Your task to perform on an android device: Go to sound settings Image 0: 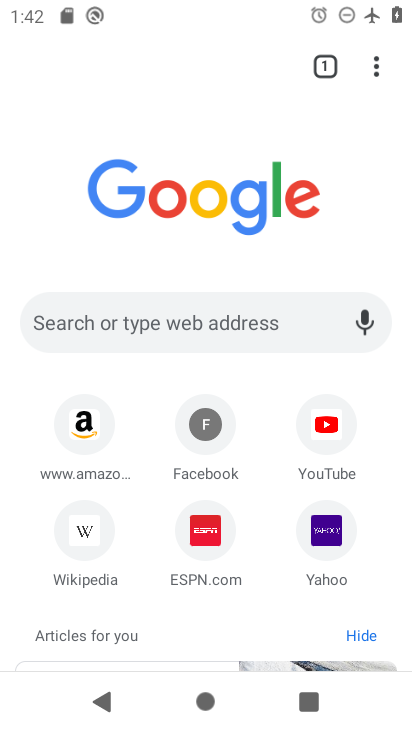
Step 0: press home button
Your task to perform on an android device: Go to sound settings Image 1: 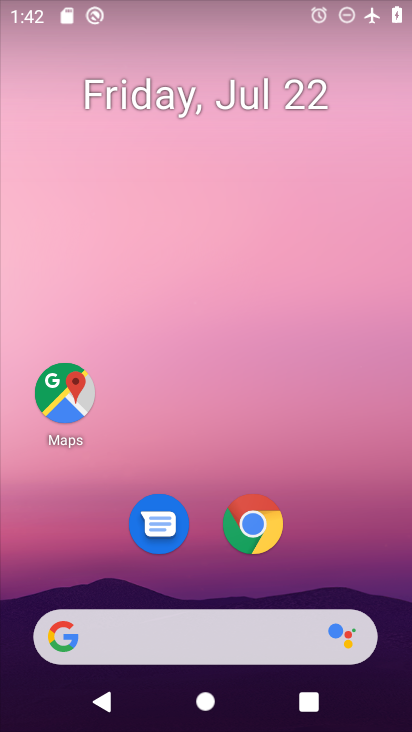
Step 1: drag from (293, 537) to (331, 97)
Your task to perform on an android device: Go to sound settings Image 2: 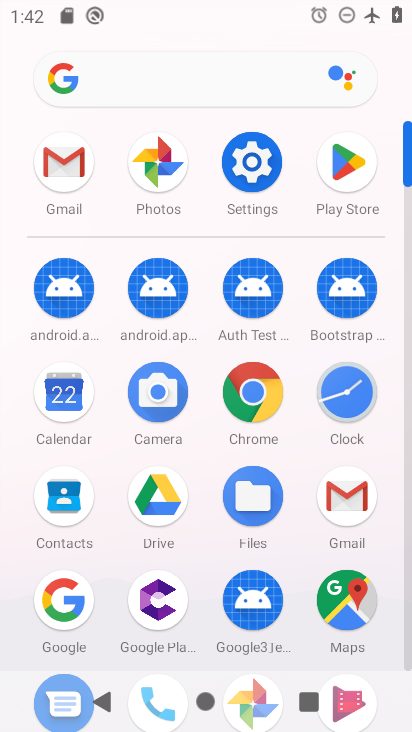
Step 2: click (262, 162)
Your task to perform on an android device: Go to sound settings Image 3: 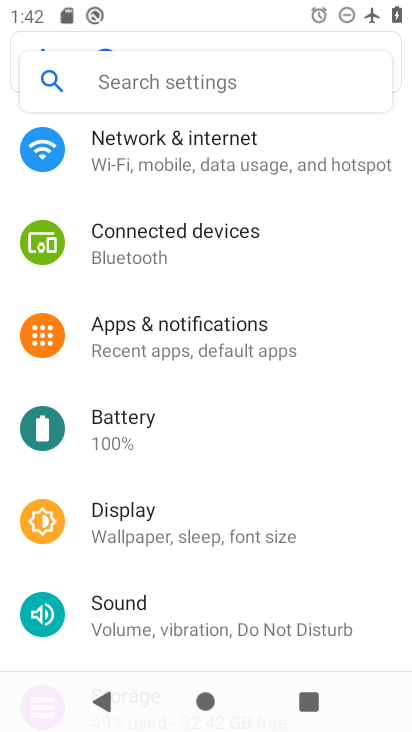
Step 3: click (177, 615)
Your task to perform on an android device: Go to sound settings Image 4: 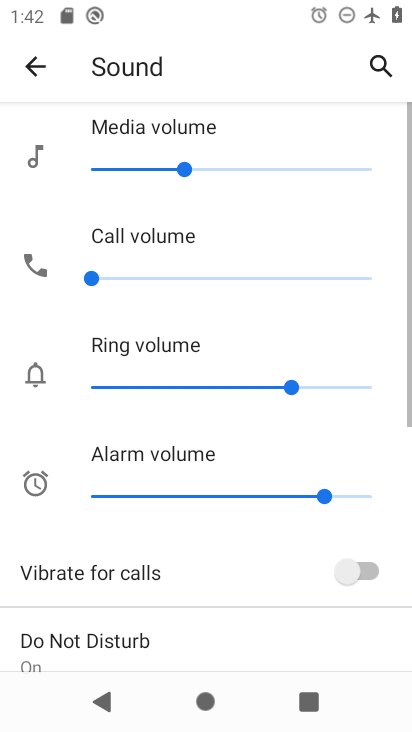
Step 4: task complete